Your task to perform on an android device: Go to Android settings Image 0: 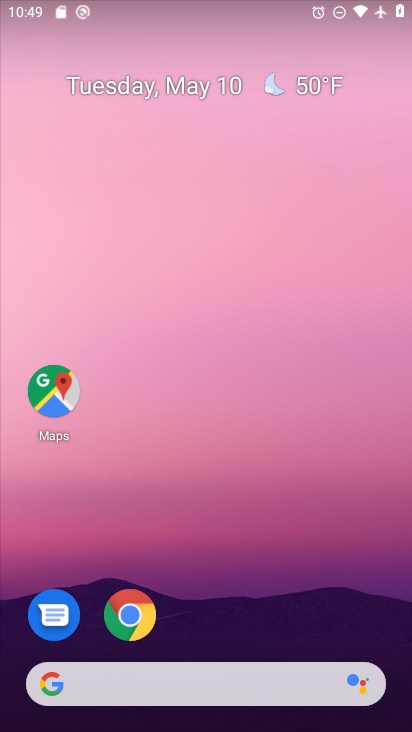
Step 0: drag from (370, 623) to (260, 189)
Your task to perform on an android device: Go to Android settings Image 1: 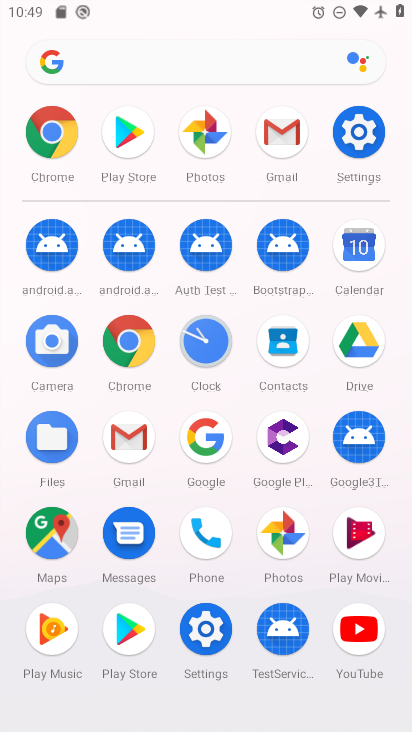
Step 1: click (200, 626)
Your task to perform on an android device: Go to Android settings Image 2: 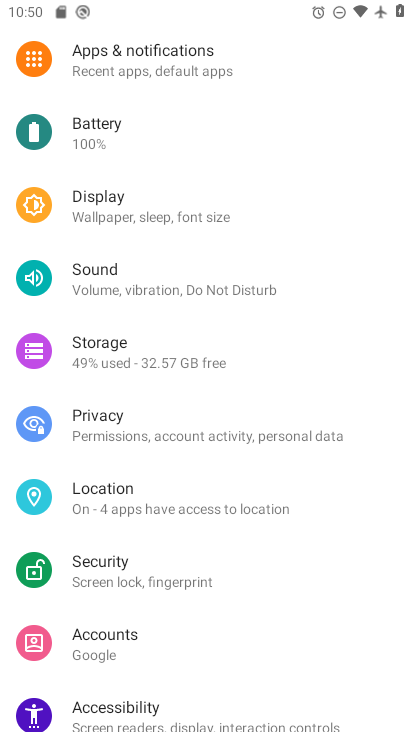
Step 2: drag from (183, 663) to (200, 268)
Your task to perform on an android device: Go to Android settings Image 3: 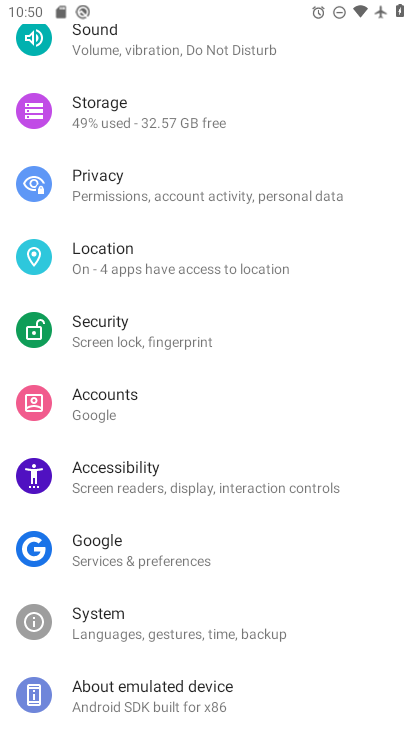
Step 3: click (145, 710)
Your task to perform on an android device: Go to Android settings Image 4: 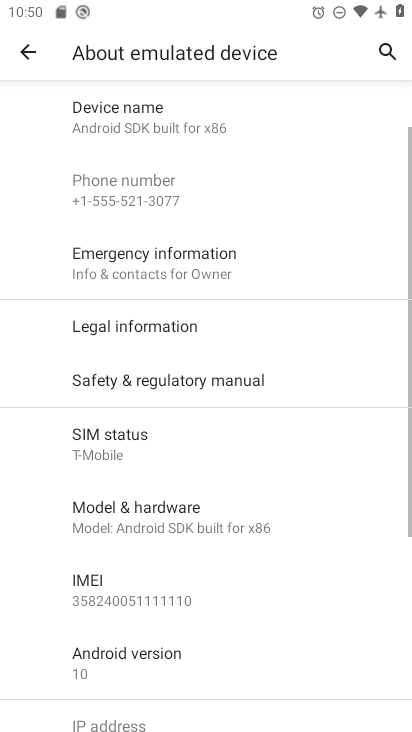
Step 4: task complete